Your task to perform on an android device: Open notification settings Image 0: 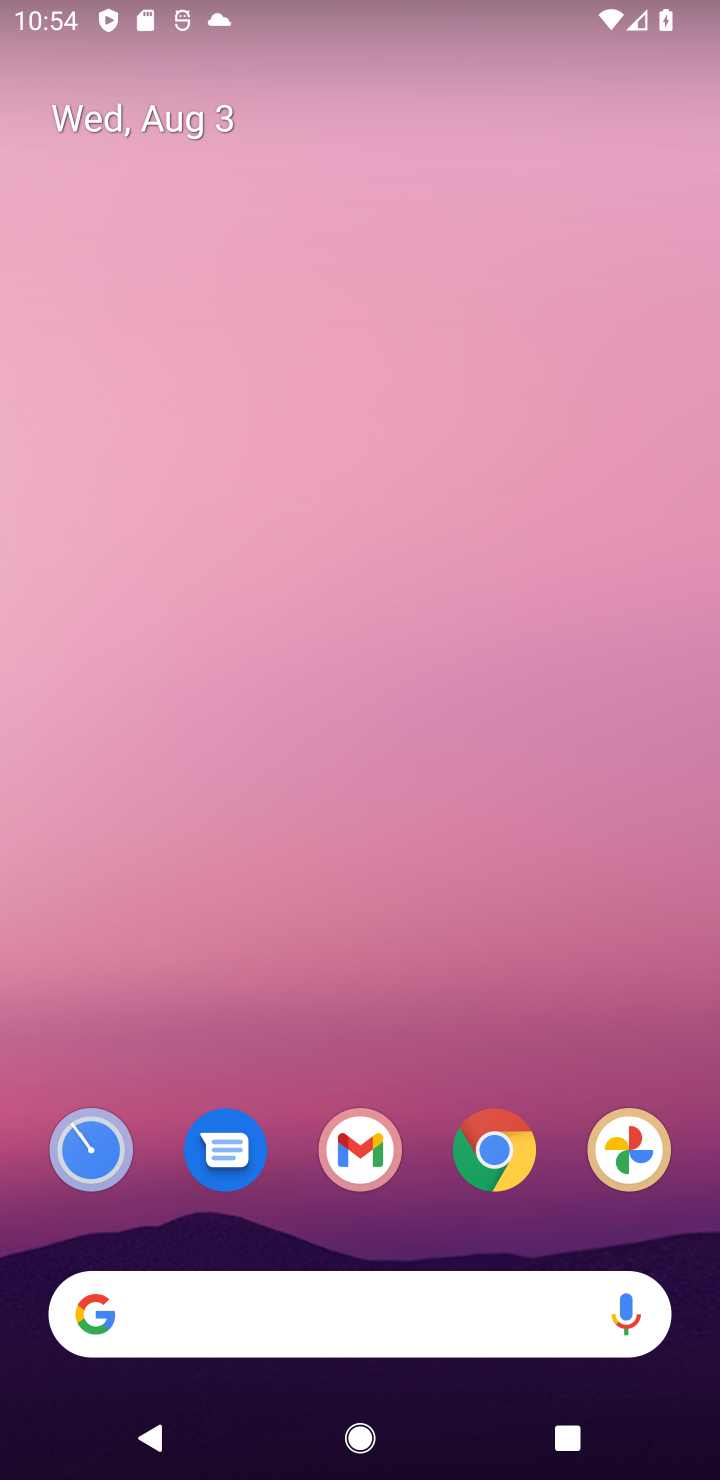
Step 0: press home button
Your task to perform on an android device: Open notification settings Image 1: 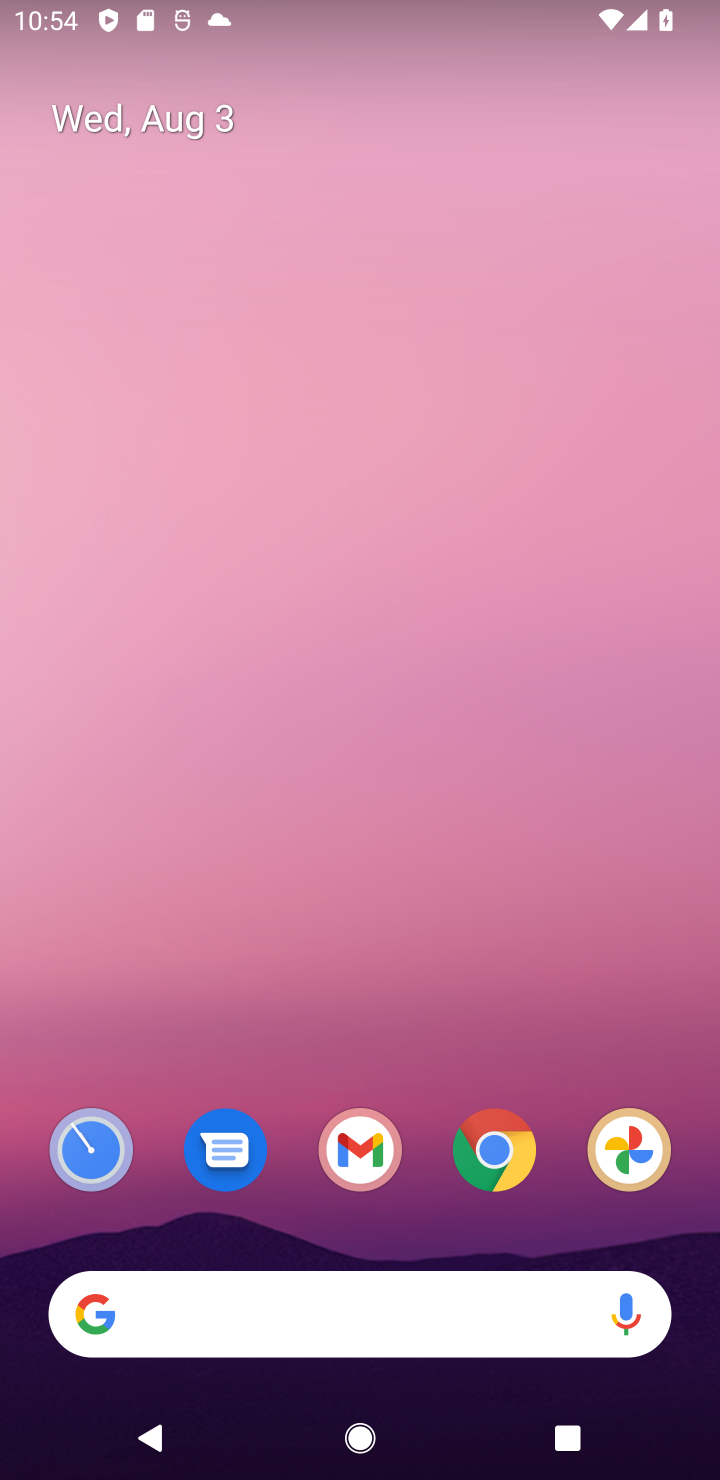
Step 1: drag from (566, 1038) to (546, 267)
Your task to perform on an android device: Open notification settings Image 2: 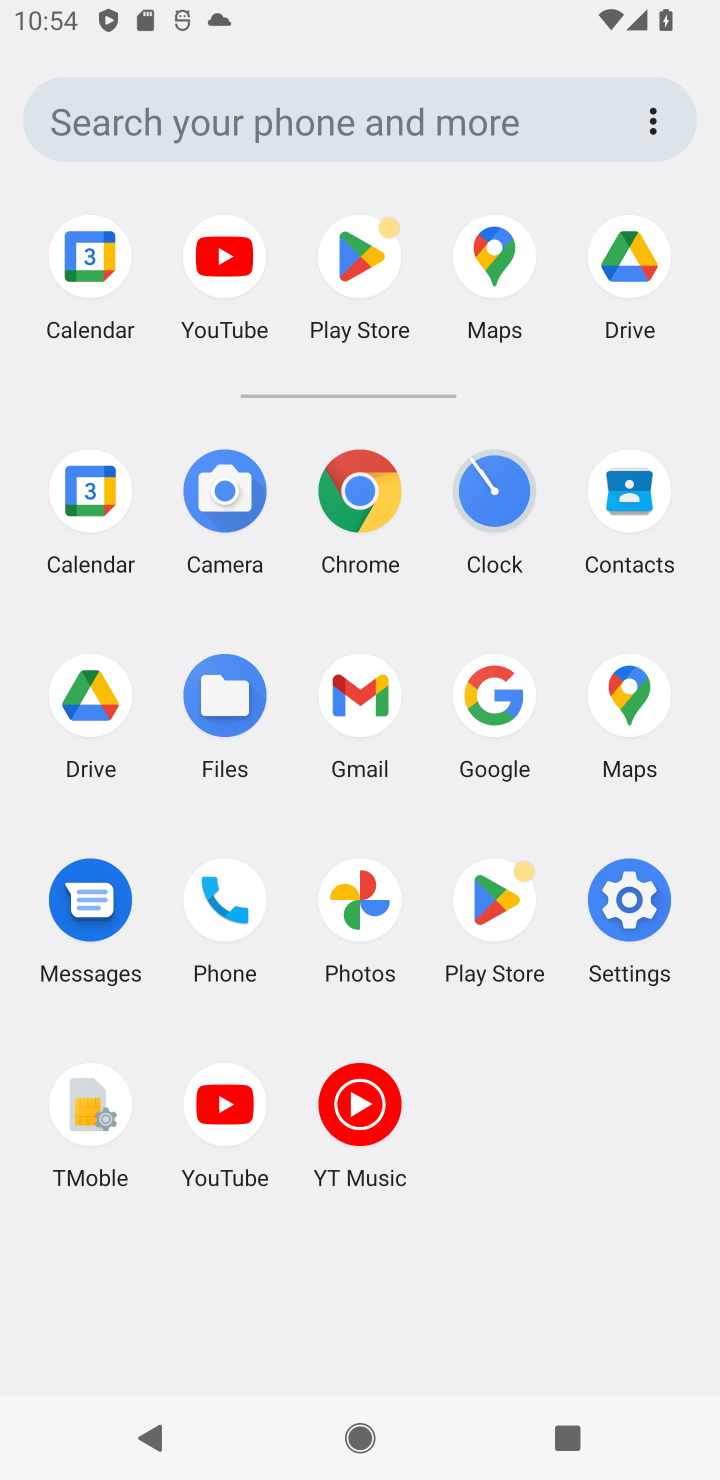
Step 2: click (635, 901)
Your task to perform on an android device: Open notification settings Image 3: 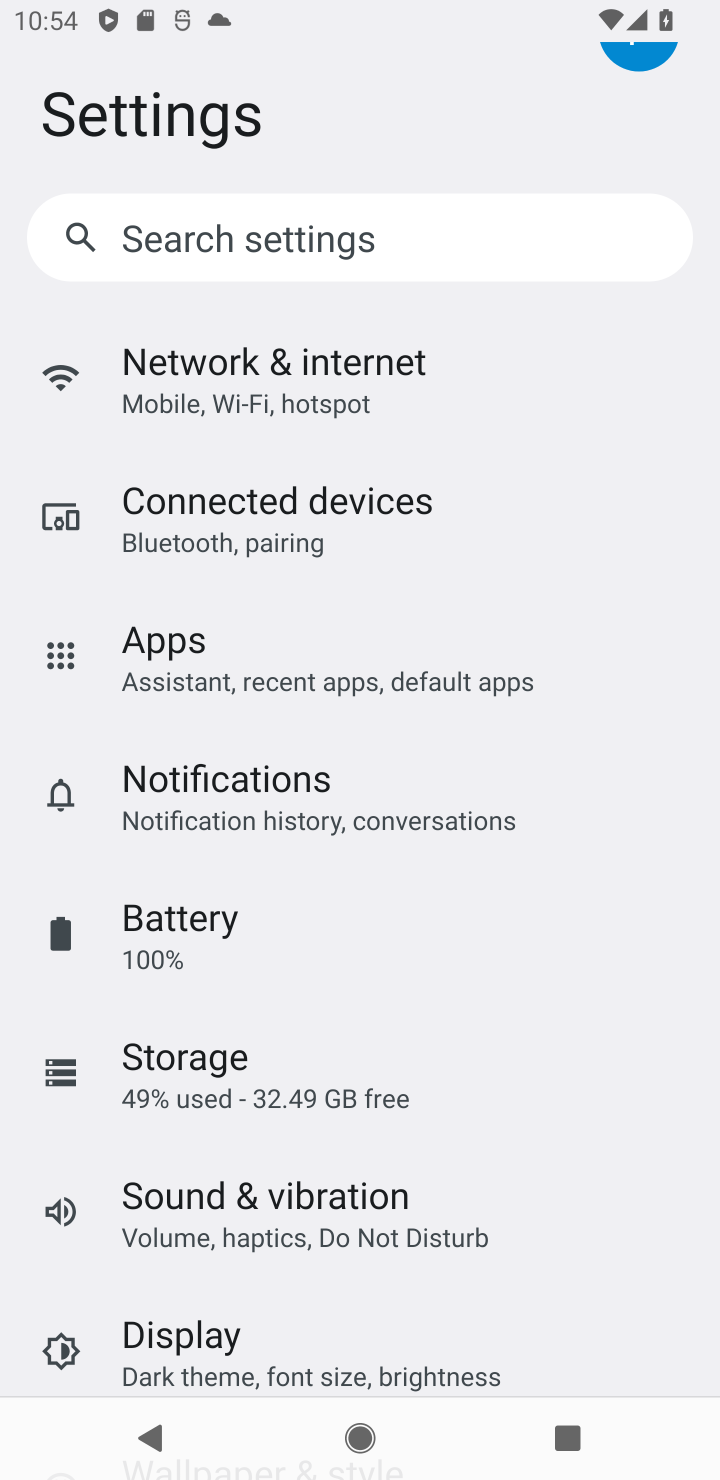
Step 3: drag from (591, 1062) to (628, 695)
Your task to perform on an android device: Open notification settings Image 4: 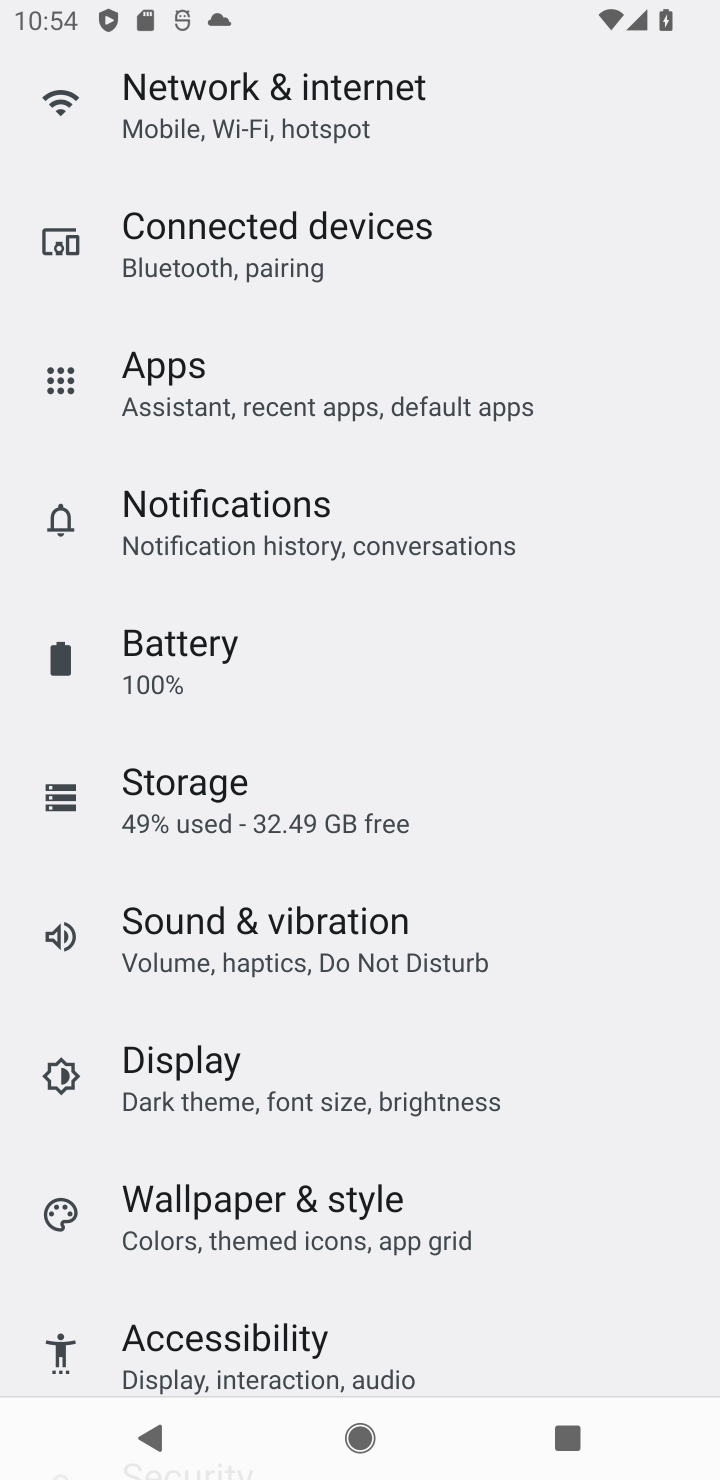
Step 4: drag from (585, 1154) to (593, 813)
Your task to perform on an android device: Open notification settings Image 5: 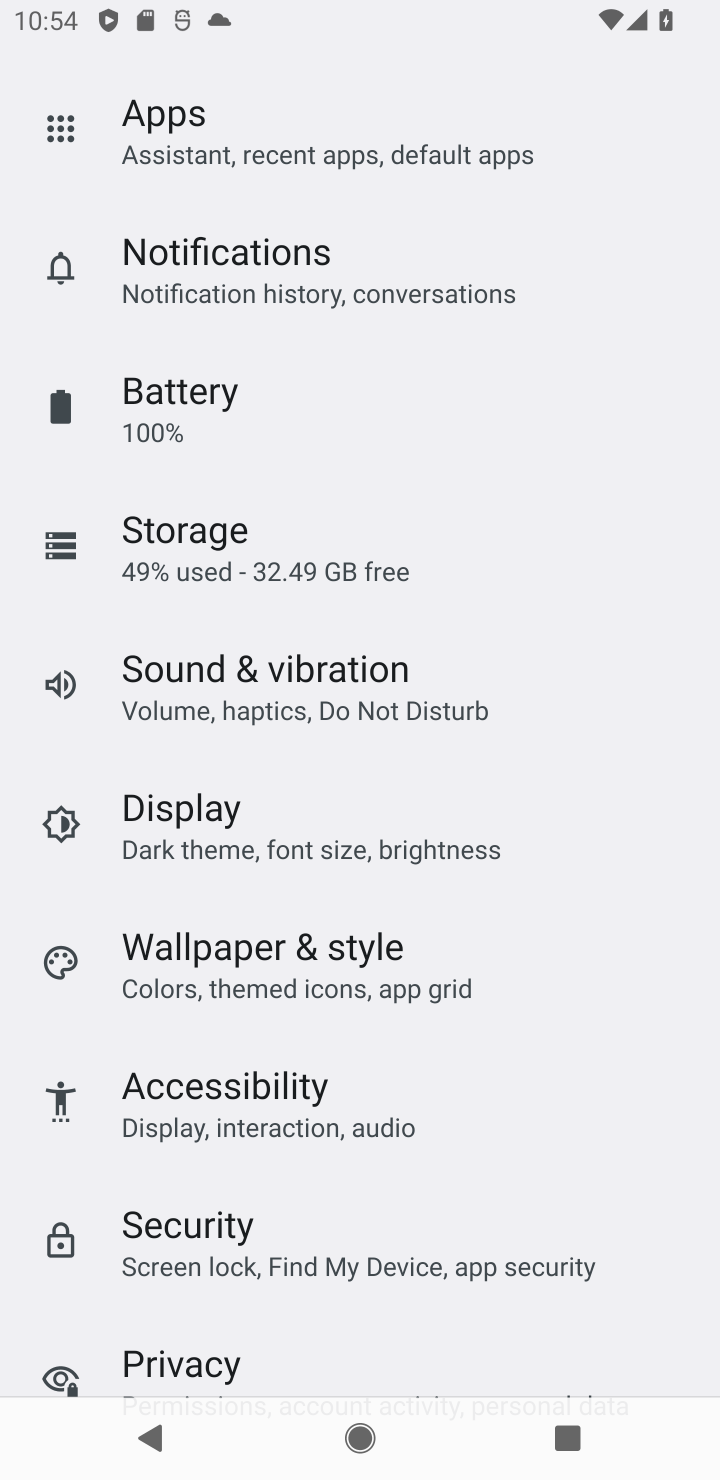
Step 5: drag from (610, 1160) to (621, 834)
Your task to perform on an android device: Open notification settings Image 6: 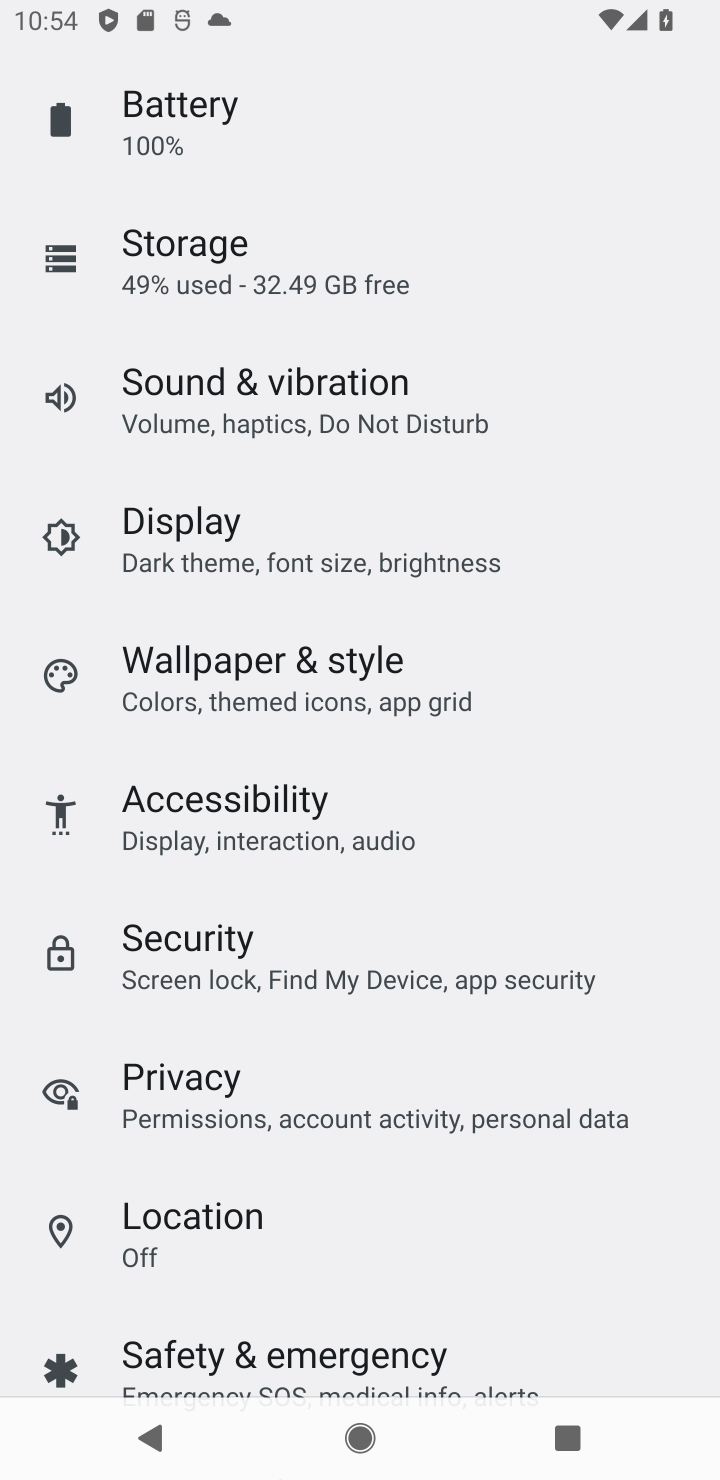
Step 6: drag from (609, 1210) to (617, 802)
Your task to perform on an android device: Open notification settings Image 7: 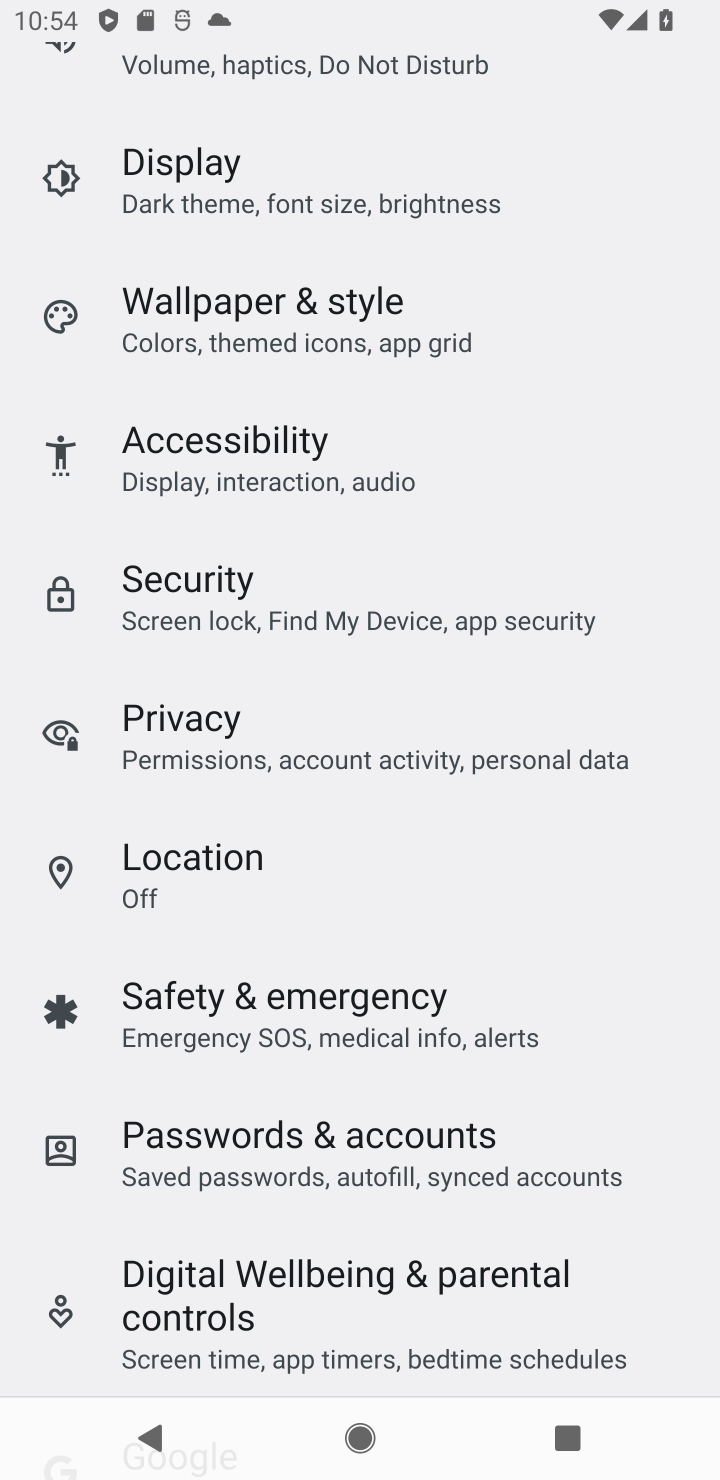
Step 7: drag from (596, 1251) to (607, 787)
Your task to perform on an android device: Open notification settings Image 8: 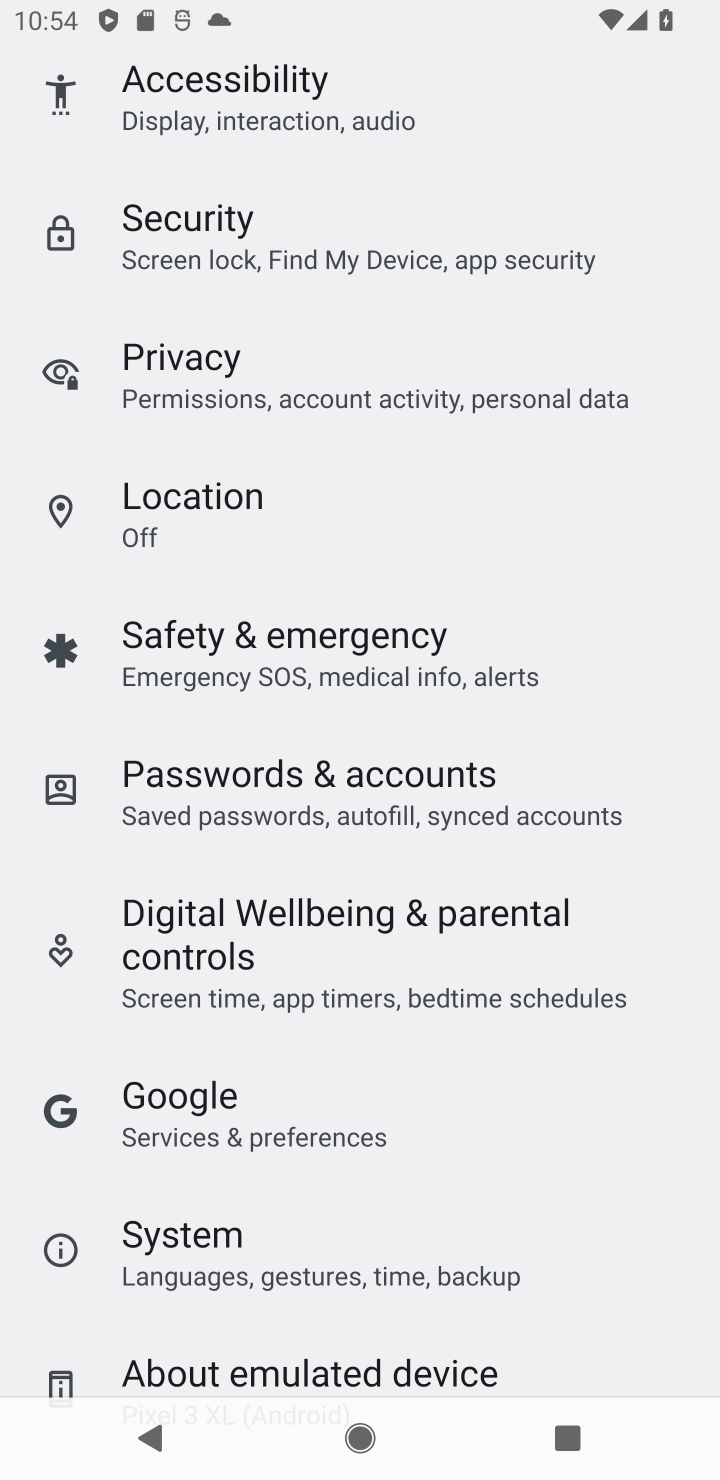
Step 8: drag from (585, 1219) to (605, 788)
Your task to perform on an android device: Open notification settings Image 9: 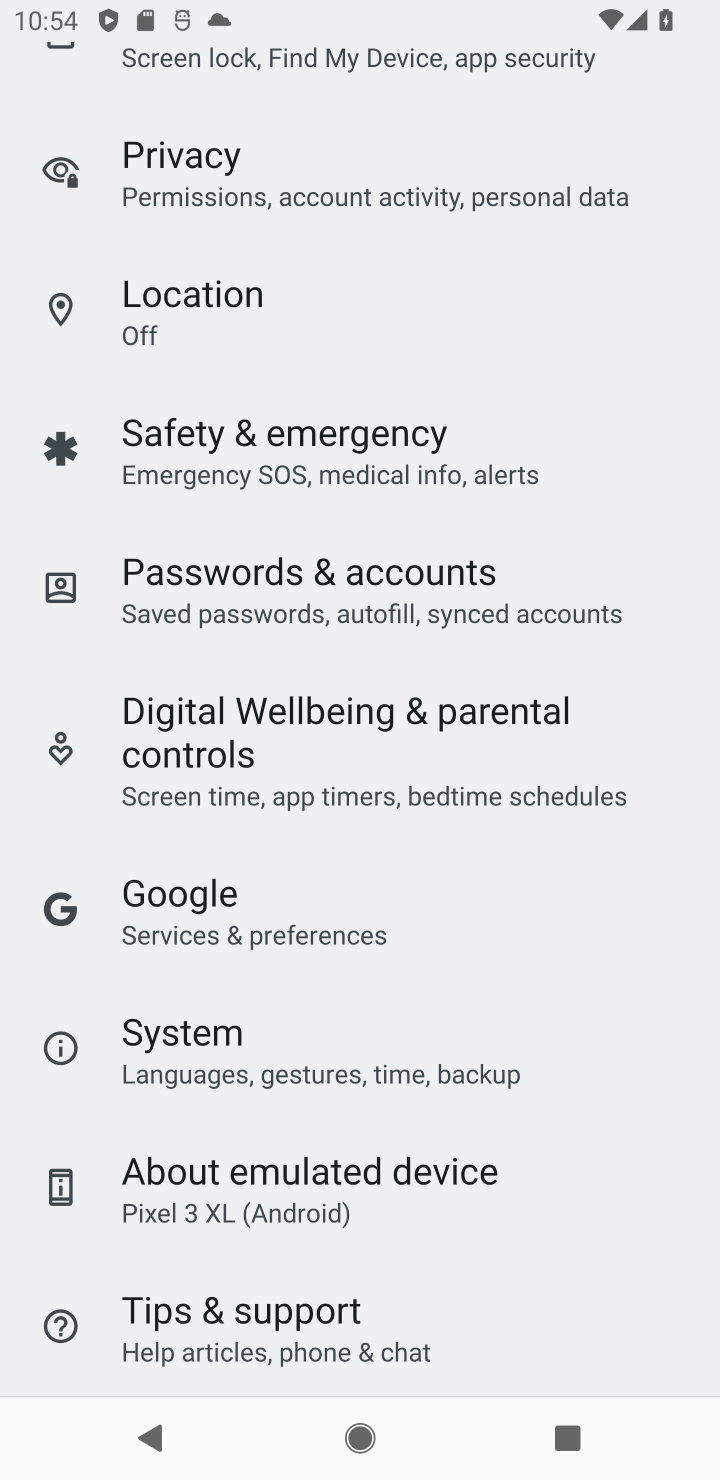
Step 9: drag from (643, 612) to (626, 935)
Your task to perform on an android device: Open notification settings Image 10: 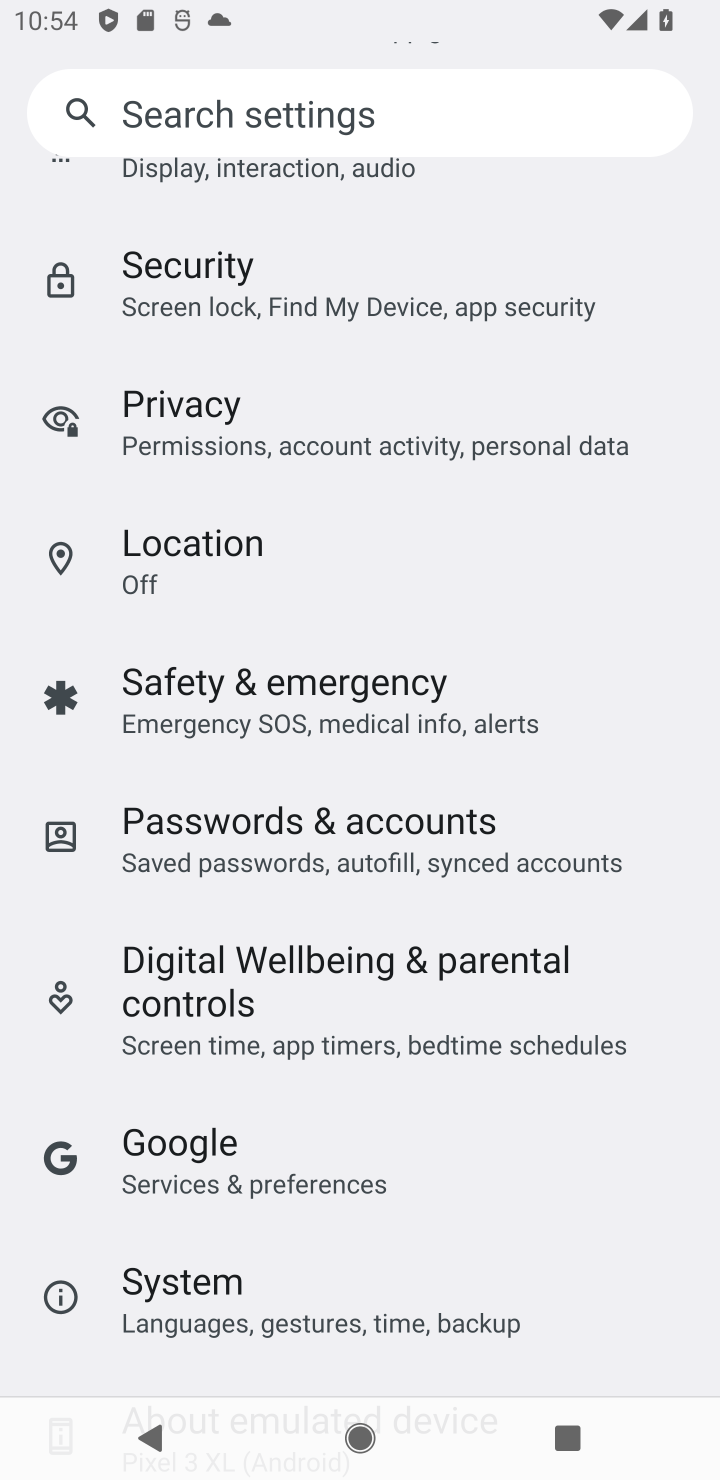
Step 10: drag from (595, 585) to (595, 953)
Your task to perform on an android device: Open notification settings Image 11: 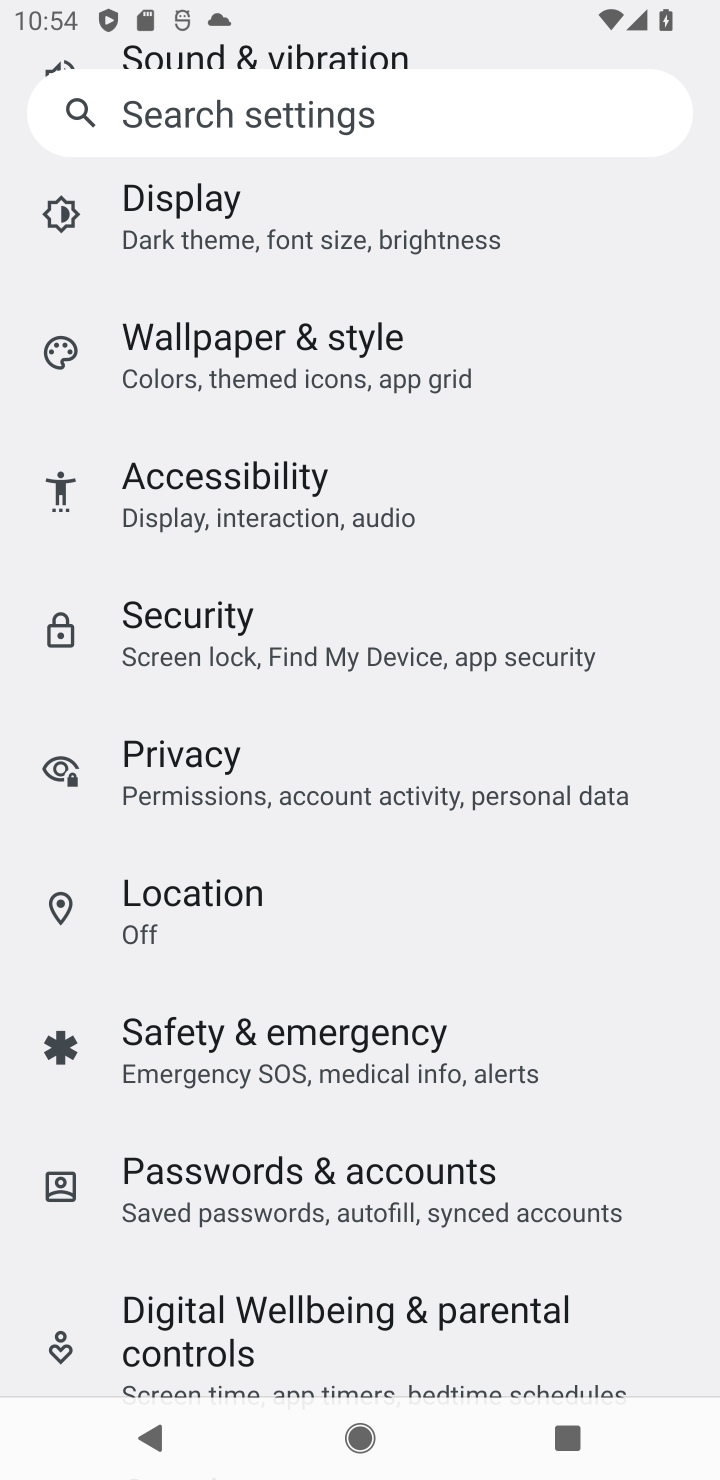
Step 11: drag from (639, 486) to (641, 787)
Your task to perform on an android device: Open notification settings Image 12: 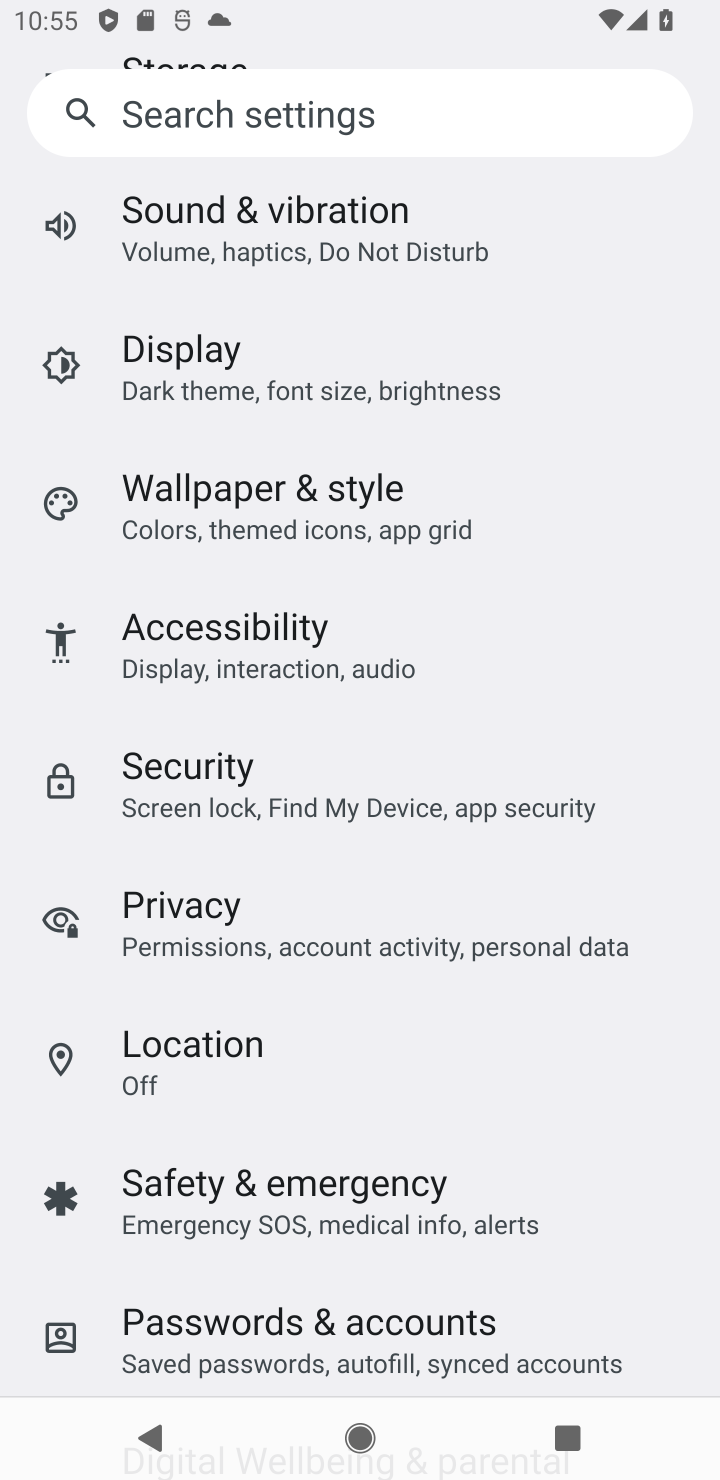
Step 12: drag from (615, 443) to (604, 817)
Your task to perform on an android device: Open notification settings Image 13: 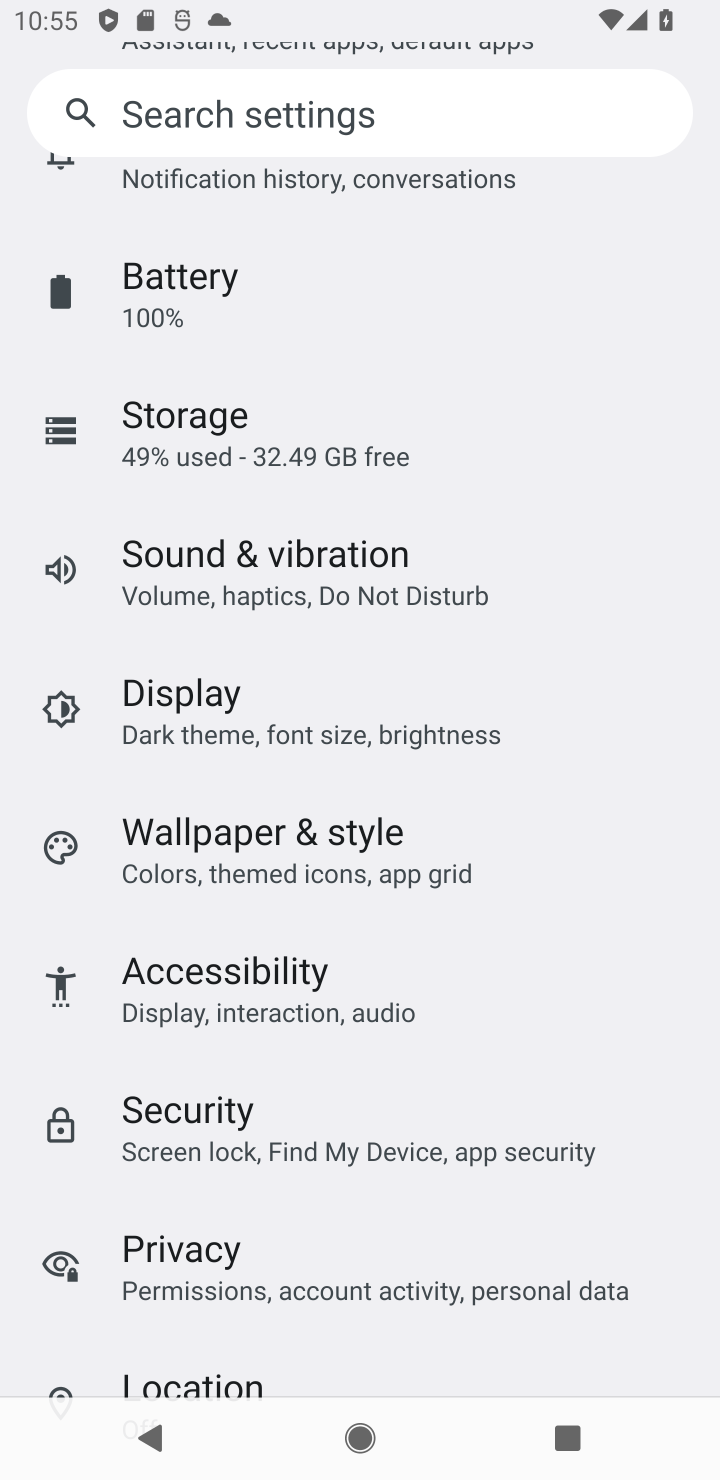
Step 13: drag from (604, 460) to (611, 824)
Your task to perform on an android device: Open notification settings Image 14: 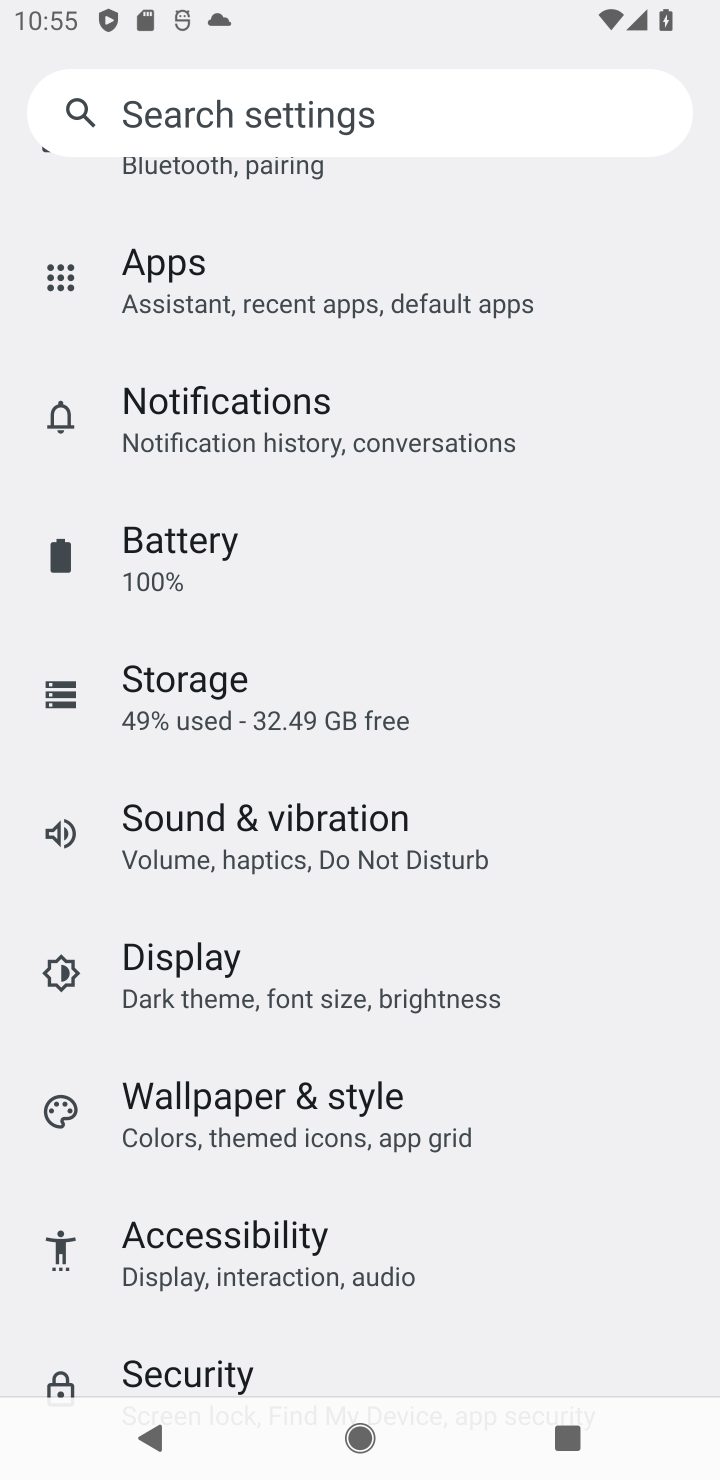
Step 14: click (490, 400)
Your task to perform on an android device: Open notification settings Image 15: 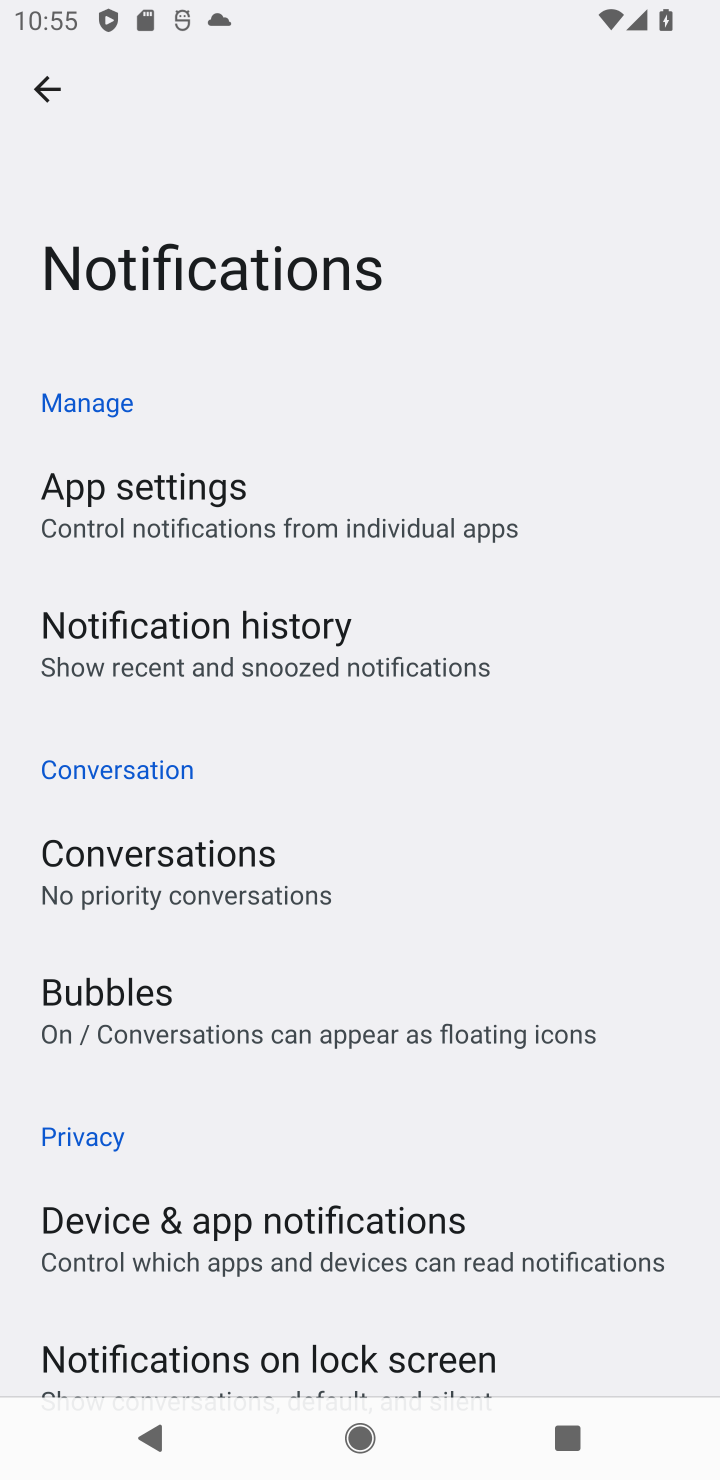
Step 15: task complete